Your task to perform on an android device: Open Chrome and go to the settings page Image 0: 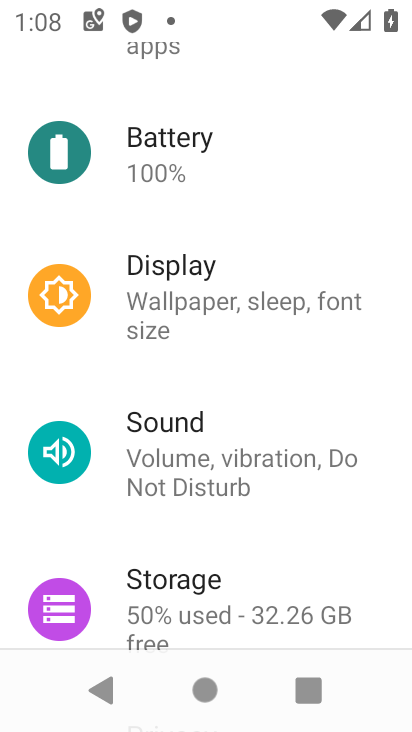
Step 0: press home button
Your task to perform on an android device: Open Chrome and go to the settings page Image 1: 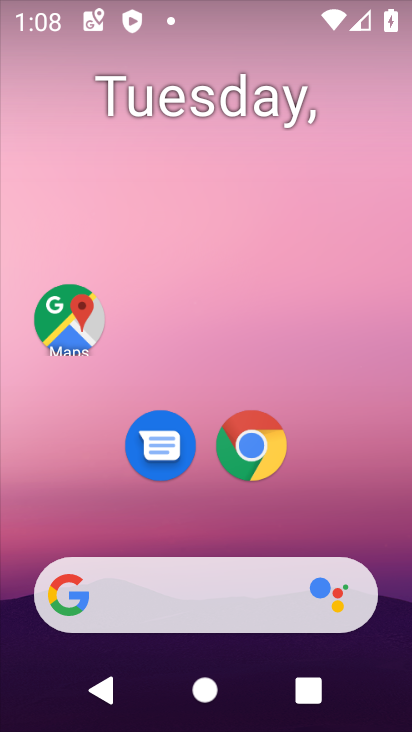
Step 1: click (237, 485)
Your task to perform on an android device: Open Chrome and go to the settings page Image 2: 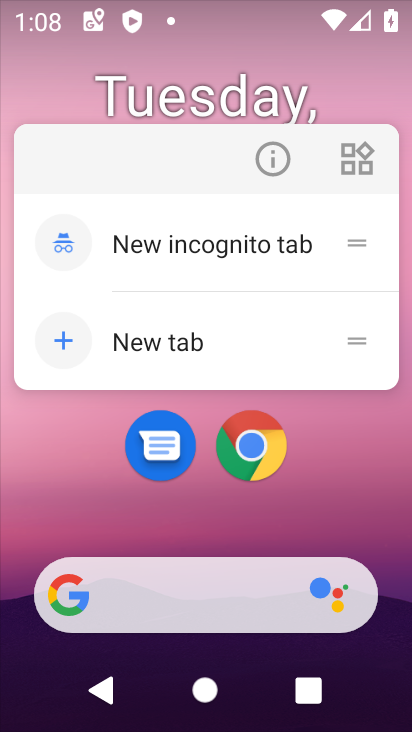
Step 2: click (281, 462)
Your task to perform on an android device: Open Chrome and go to the settings page Image 3: 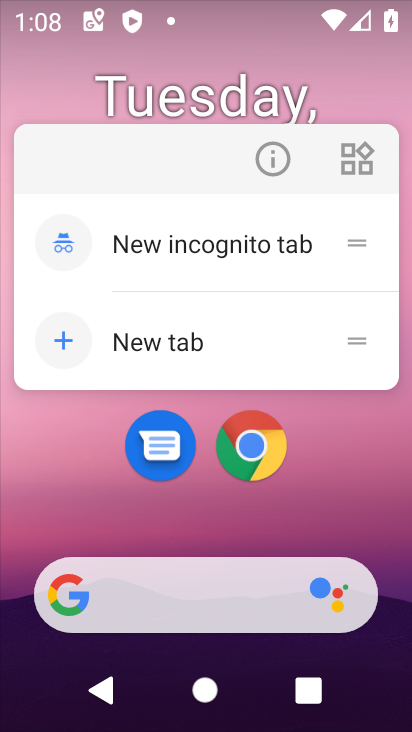
Step 3: click (245, 459)
Your task to perform on an android device: Open Chrome and go to the settings page Image 4: 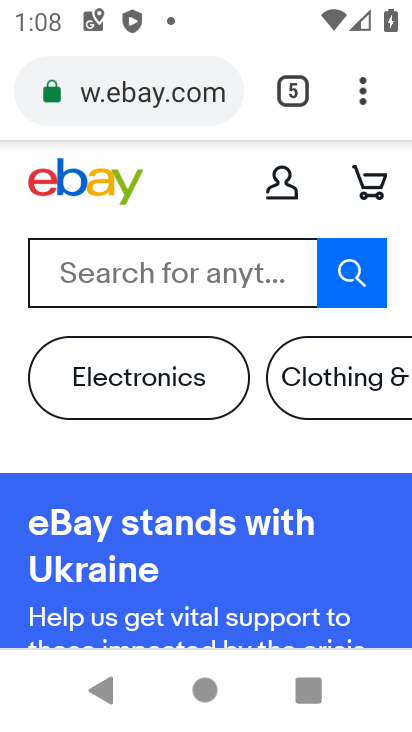
Step 4: task complete